Your task to perform on an android device: add a label to a message in the gmail app Image 0: 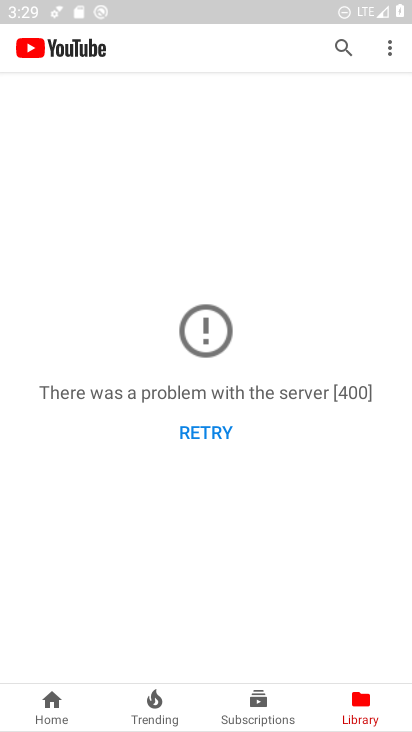
Step 0: press home button
Your task to perform on an android device: add a label to a message in the gmail app Image 1: 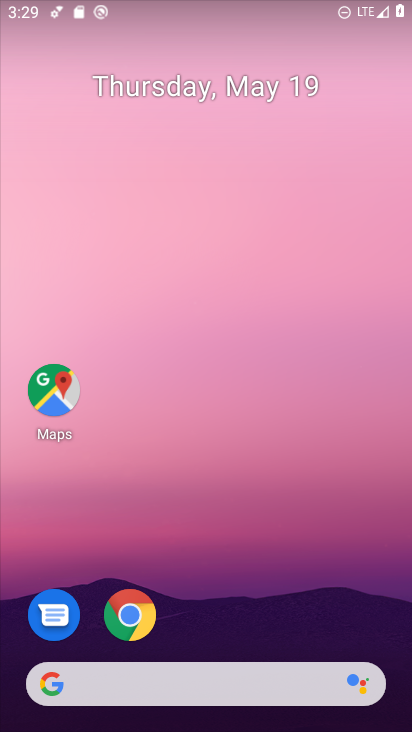
Step 1: drag from (268, 635) to (231, 119)
Your task to perform on an android device: add a label to a message in the gmail app Image 2: 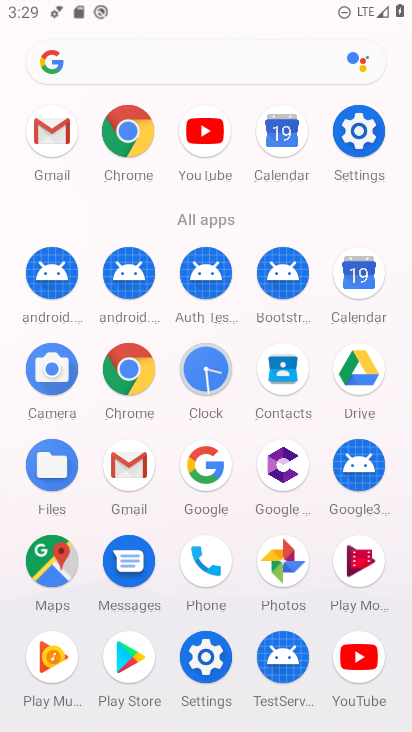
Step 2: click (54, 144)
Your task to perform on an android device: add a label to a message in the gmail app Image 3: 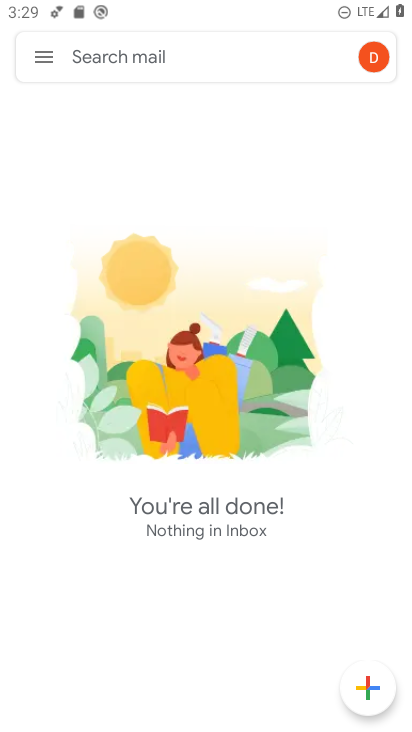
Step 3: task complete